Your task to perform on an android device: Open Google Image 0: 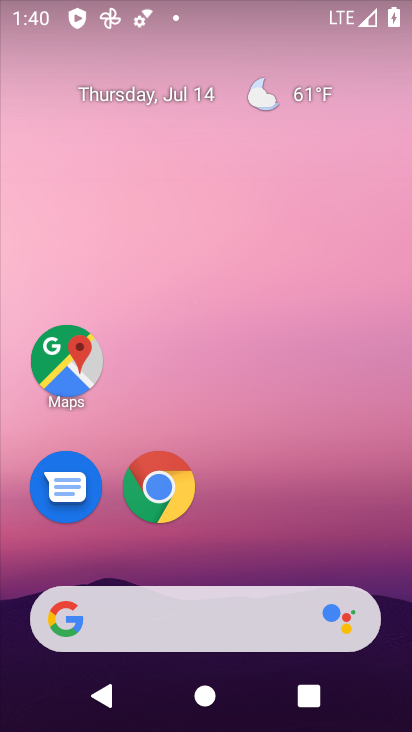
Step 0: drag from (347, 559) to (331, 126)
Your task to perform on an android device: Open Google Image 1: 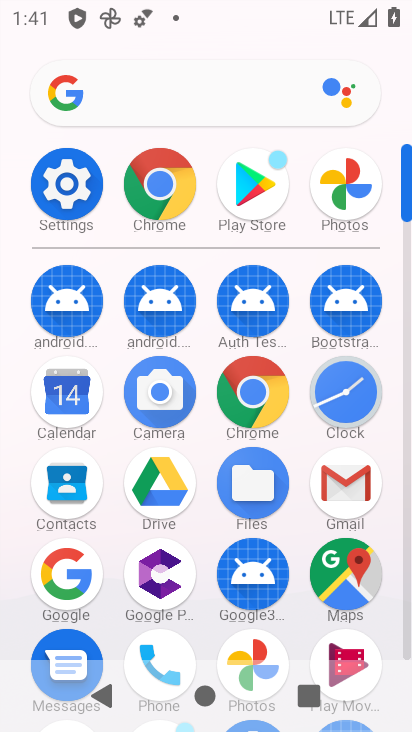
Step 1: click (76, 571)
Your task to perform on an android device: Open Google Image 2: 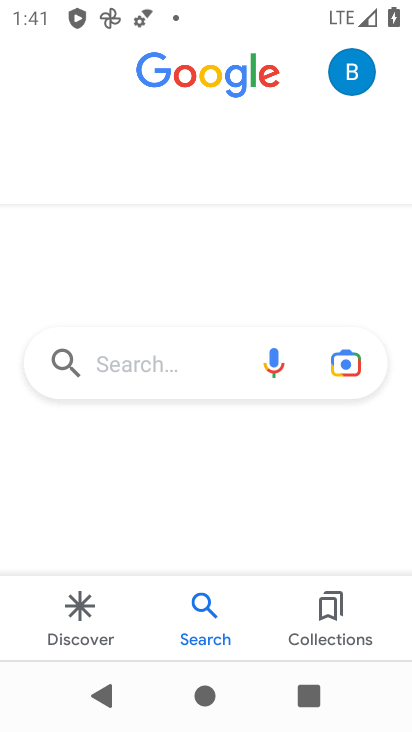
Step 2: task complete